Your task to perform on an android device: check out phone information Image 0: 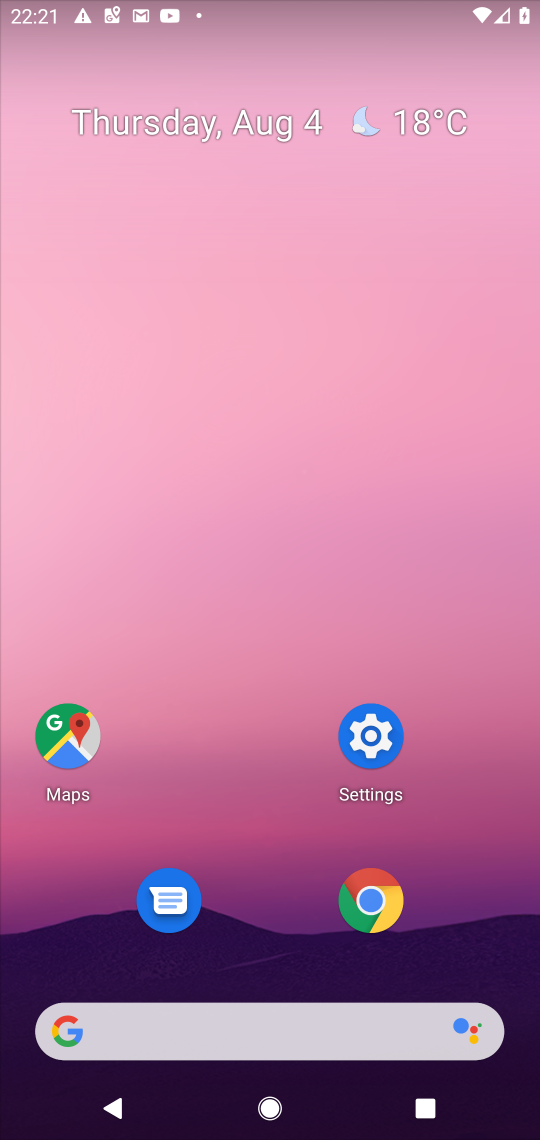
Step 0: press home button
Your task to perform on an android device: check out phone information Image 1: 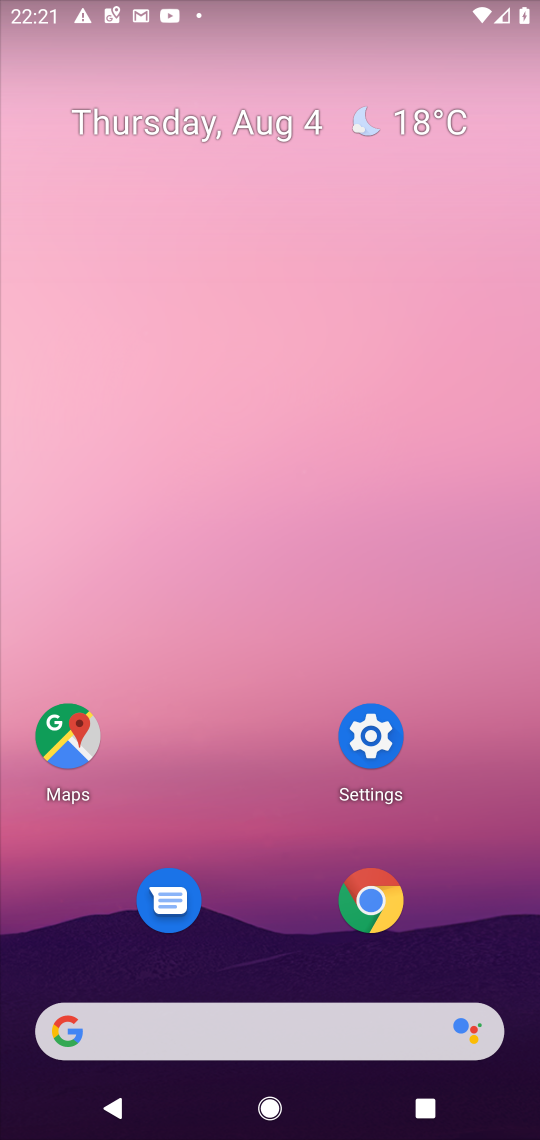
Step 1: click (374, 735)
Your task to perform on an android device: check out phone information Image 2: 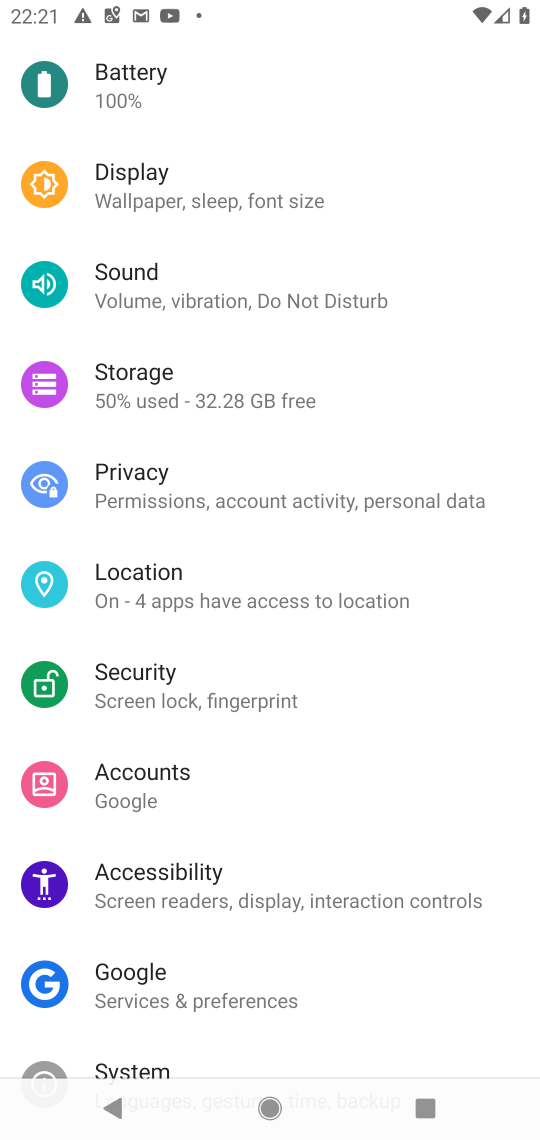
Step 2: drag from (333, 1004) to (395, 59)
Your task to perform on an android device: check out phone information Image 3: 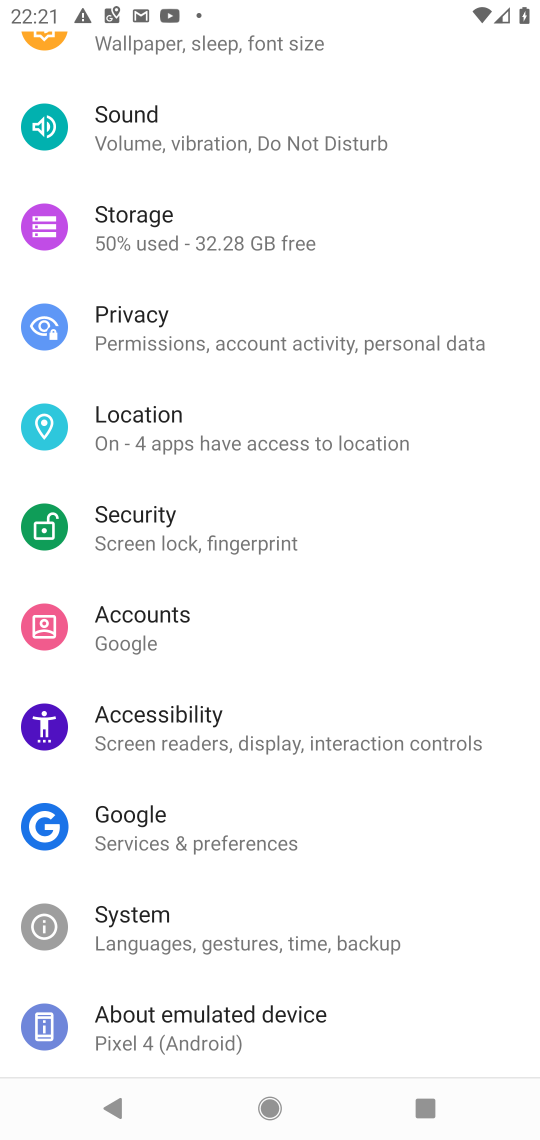
Step 3: click (233, 1027)
Your task to perform on an android device: check out phone information Image 4: 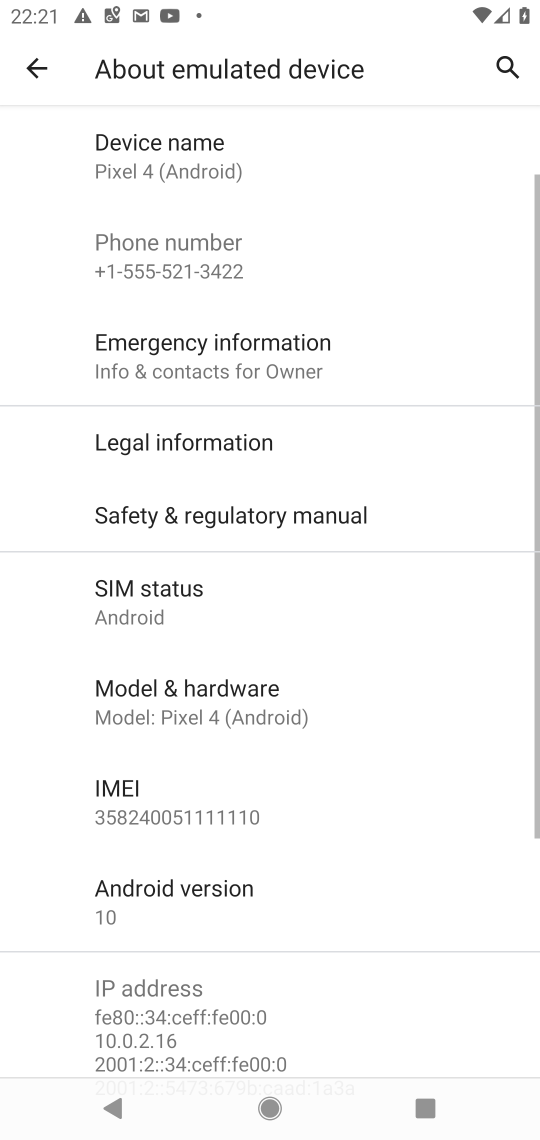
Step 4: task complete